Your task to perform on an android device: Search for vegetarian restaurants on Maps Image 0: 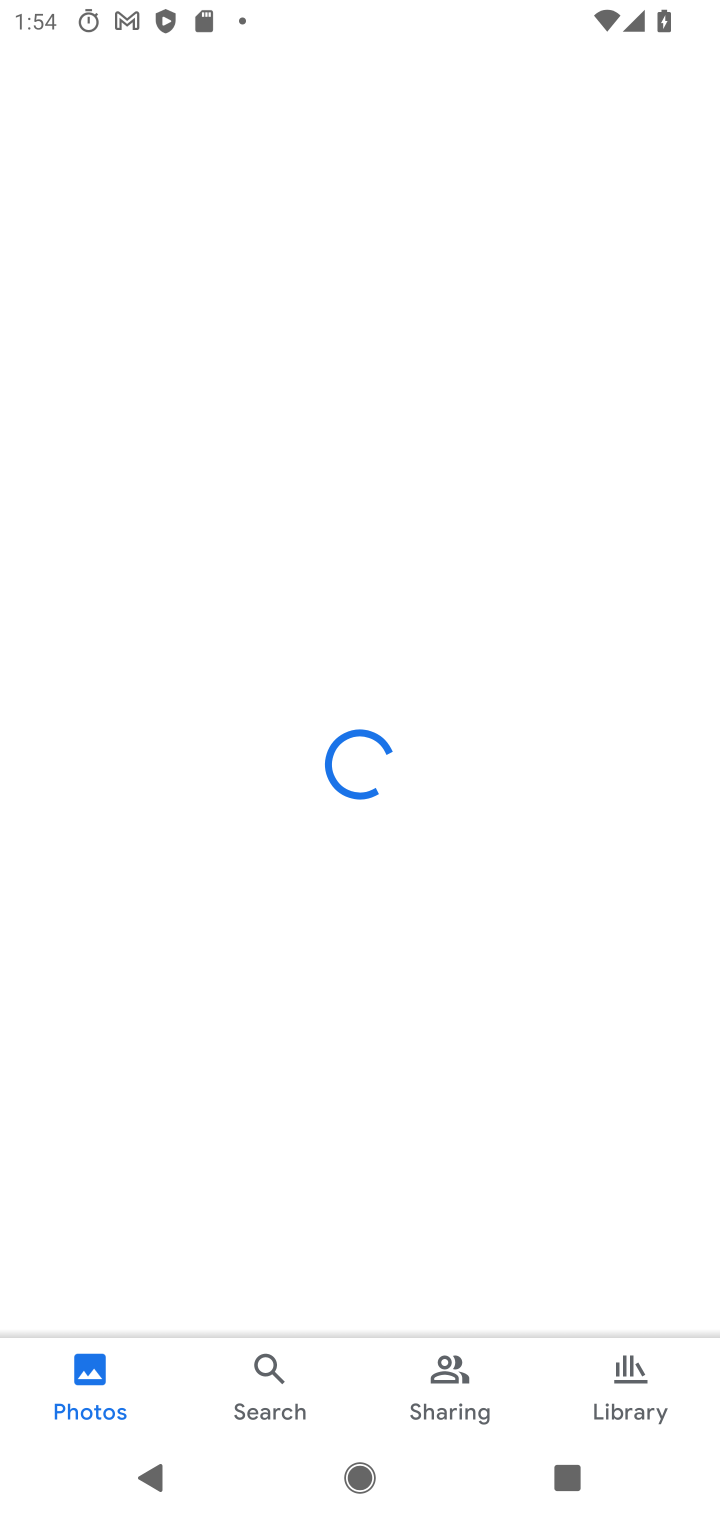
Step 0: press home button
Your task to perform on an android device: Search for vegetarian restaurants on Maps Image 1: 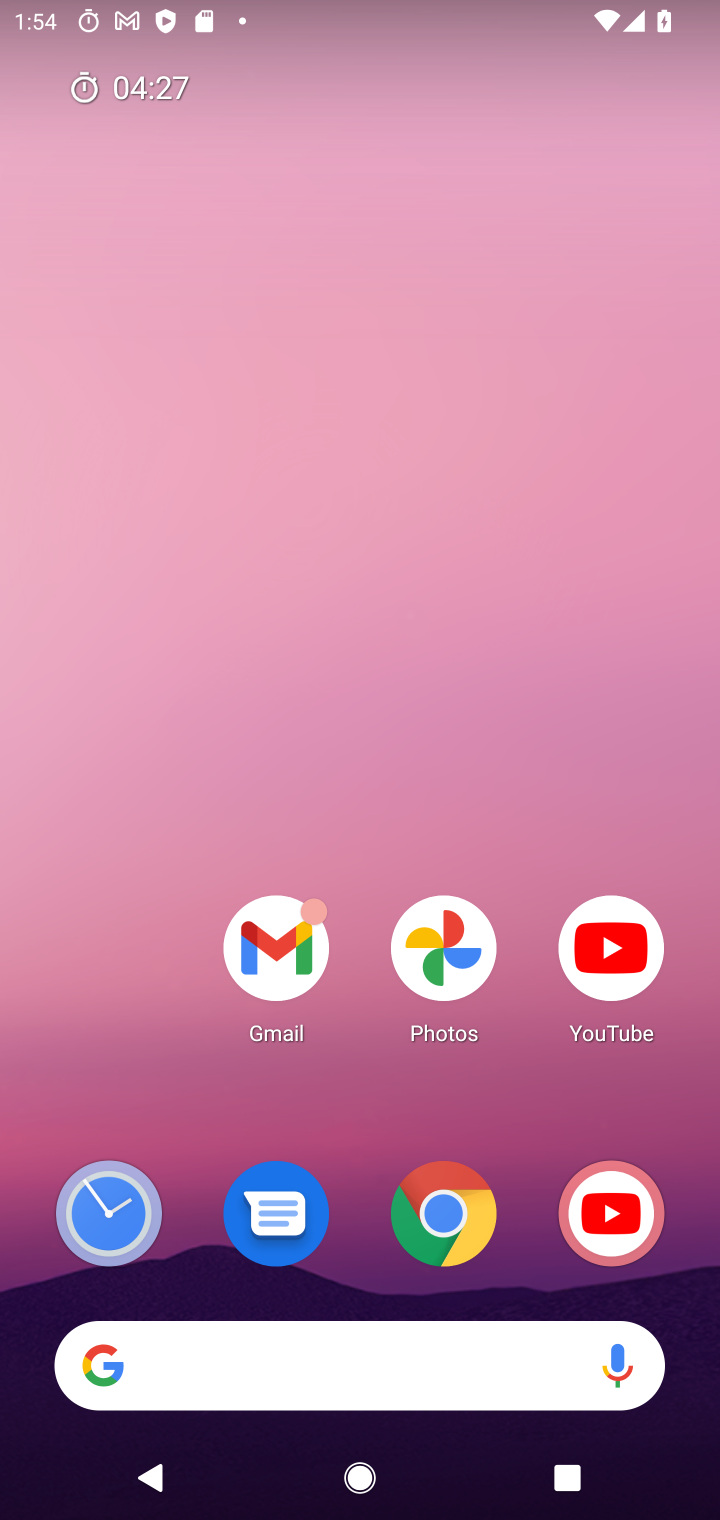
Step 1: drag from (371, 1372) to (518, 87)
Your task to perform on an android device: Search for vegetarian restaurants on Maps Image 2: 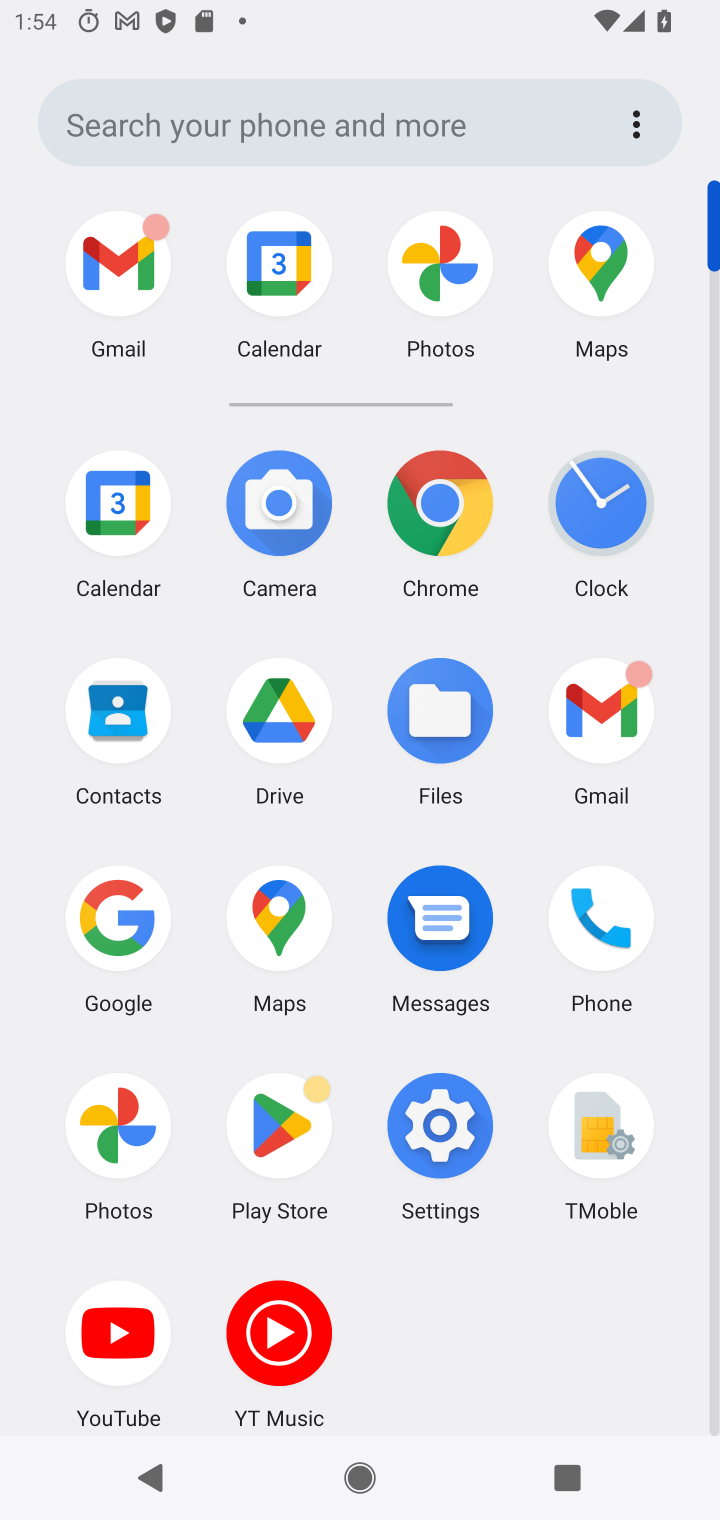
Step 2: click (279, 912)
Your task to perform on an android device: Search for vegetarian restaurants on Maps Image 3: 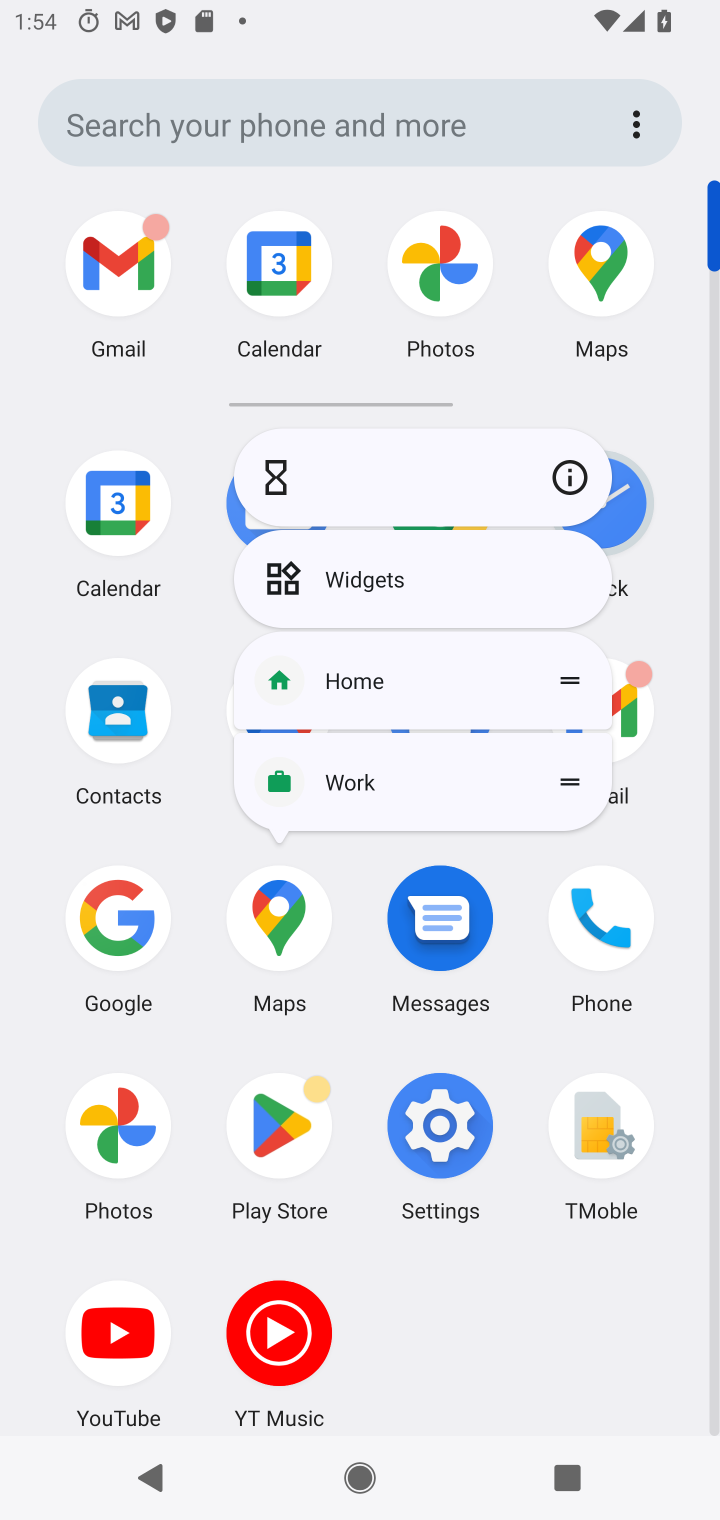
Step 3: click (281, 934)
Your task to perform on an android device: Search for vegetarian restaurants on Maps Image 4: 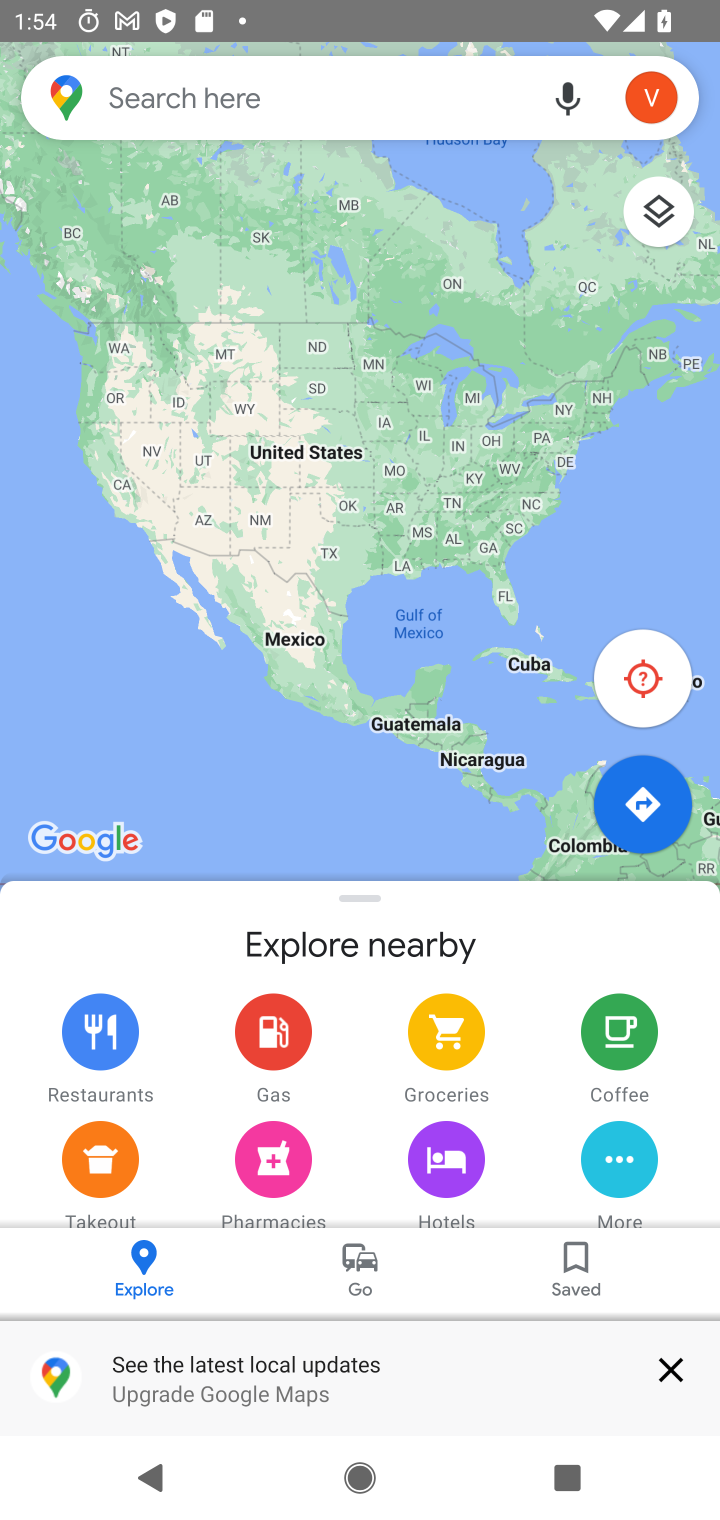
Step 4: click (344, 102)
Your task to perform on an android device: Search for vegetarian restaurants on Maps Image 5: 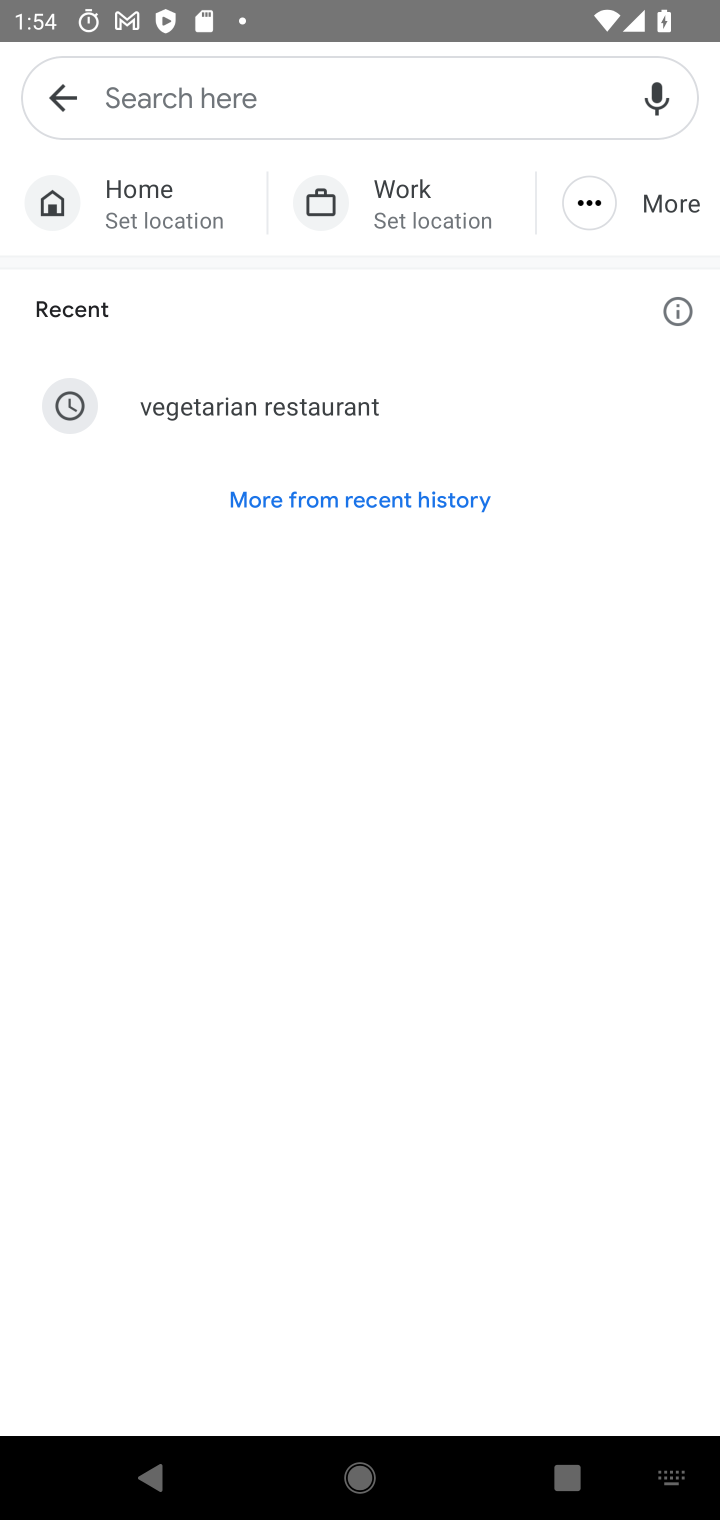
Step 5: click (296, 404)
Your task to perform on an android device: Search for vegetarian restaurants on Maps Image 6: 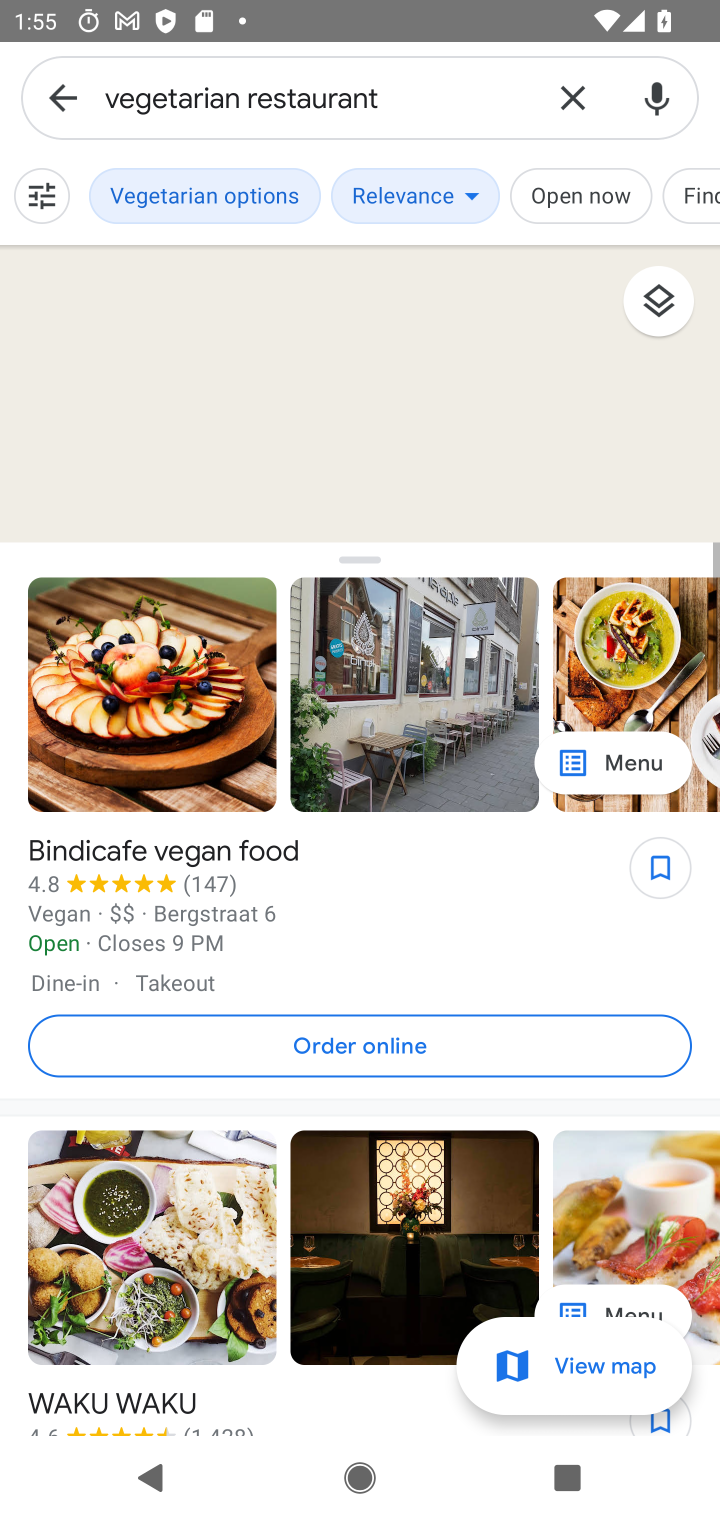
Step 6: task complete